Your task to perform on an android device: Open Google Chrome and open the bookmarks view Image 0: 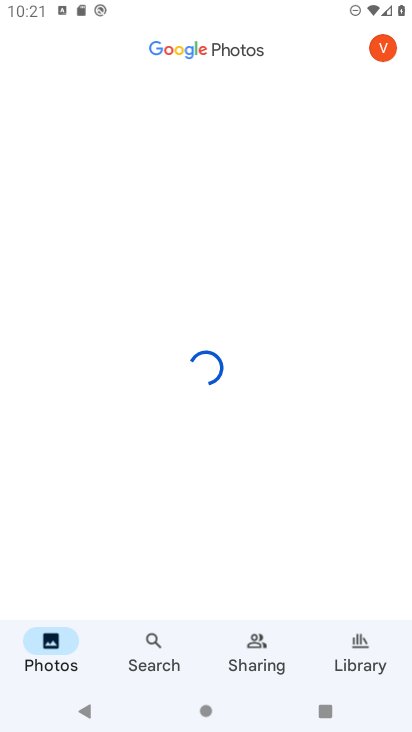
Step 0: press home button
Your task to perform on an android device: Open Google Chrome and open the bookmarks view Image 1: 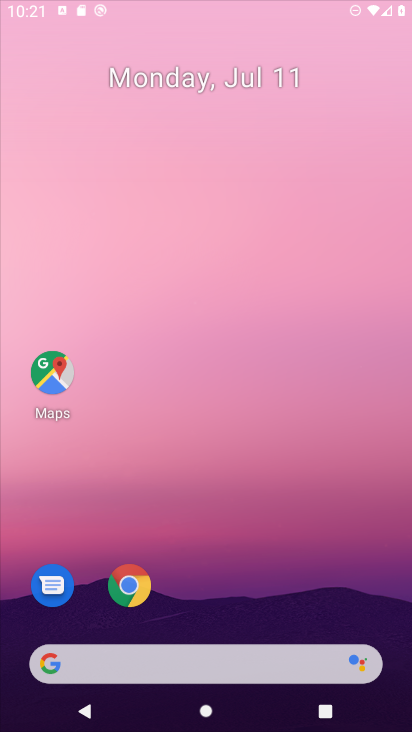
Step 1: drag from (390, 668) to (42, 126)
Your task to perform on an android device: Open Google Chrome and open the bookmarks view Image 2: 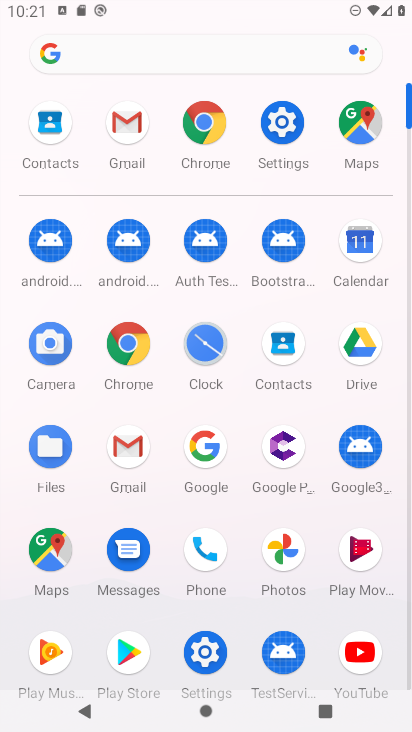
Step 2: click (195, 126)
Your task to perform on an android device: Open Google Chrome and open the bookmarks view Image 3: 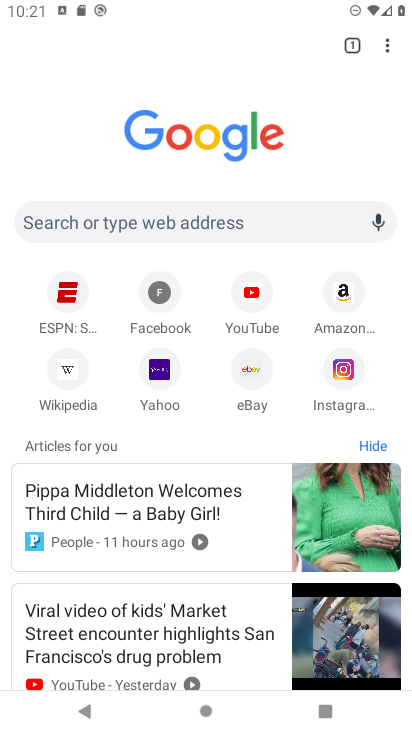
Step 3: click (383, 40)
Your task to perform on an android device: Open Google Chrome and open the bookmarks view Image 4: 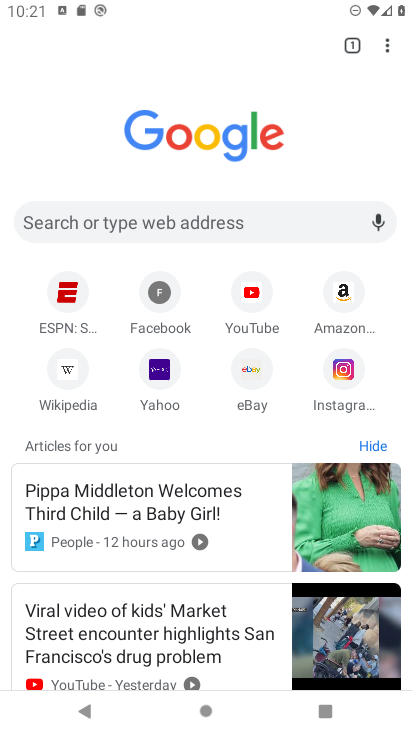
Step 4: click (385, 41)
Your task to perform on an android device: Open Google Chrome and open the bookmarks view Image 5: 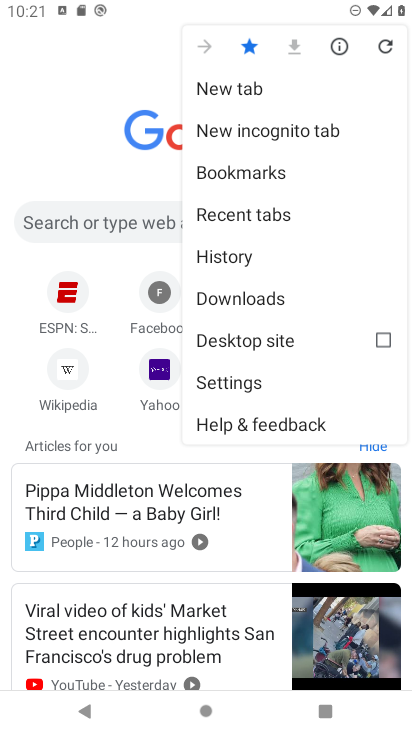
Step 5: click (292, 173)
Your task to perform on an android device: Open Google Chrome and open the bookmarks view Image 6: 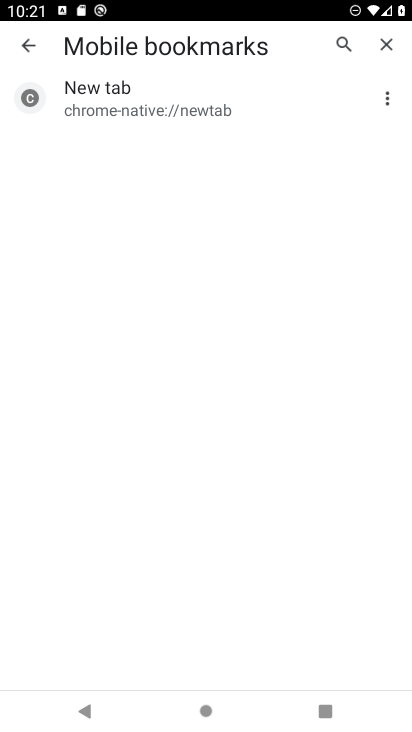
Step 6: task complete